Your task to perform on an android device: Turn on the flashlight Image 0: 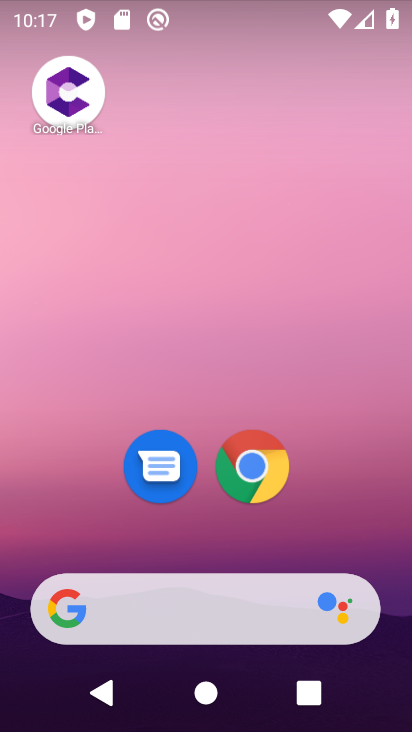
Step 0: drag from (209, 23) to (279, 663)
Your task to perform on an android device: Turn on the flashlight Image 1: 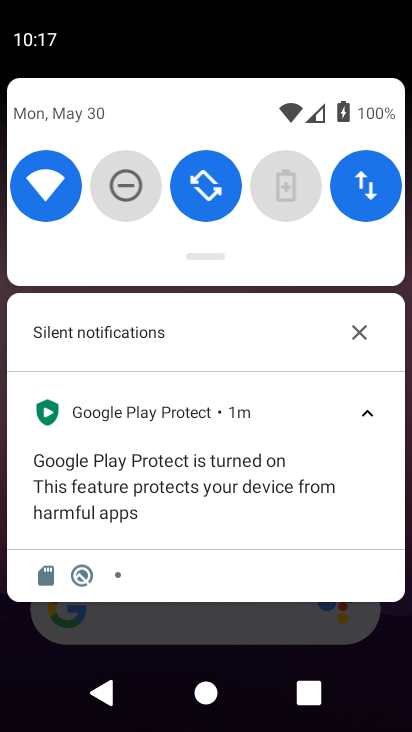
Step 1: drag from (205, 265) to (228, 730)
Your task to perform on an android device: Turn on the flashlight Image 2: 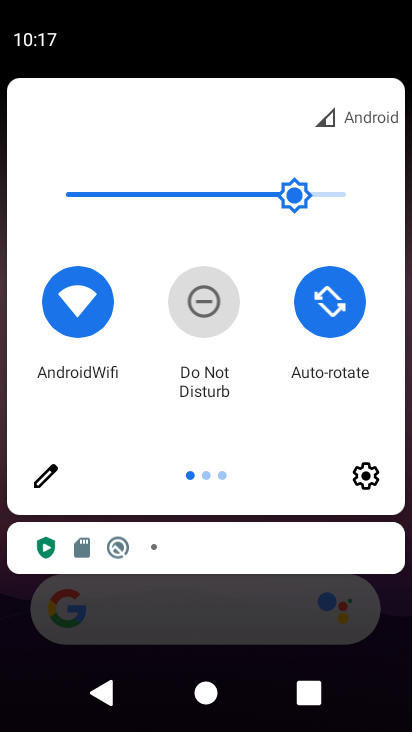
Step 2: click (37, 479)
Your task to perform on an android device: Turn on the flashlight Image 3: 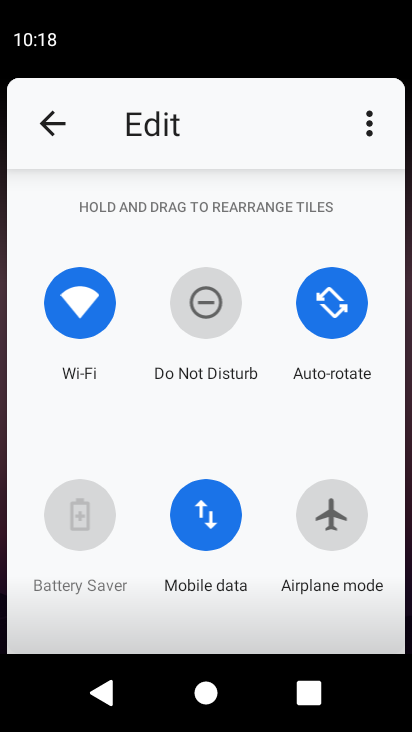
Step 3: task complete